Your task to perform on an android device: Go to eBay Image 0: 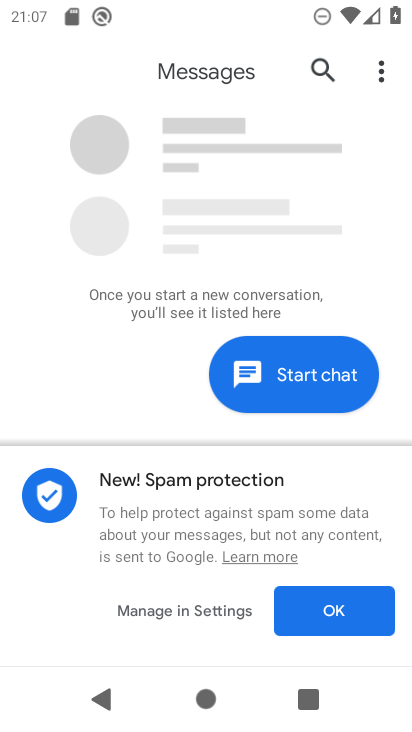
Step 0: press home button
Your task to perform on an android device: Go to eBay Image 1: 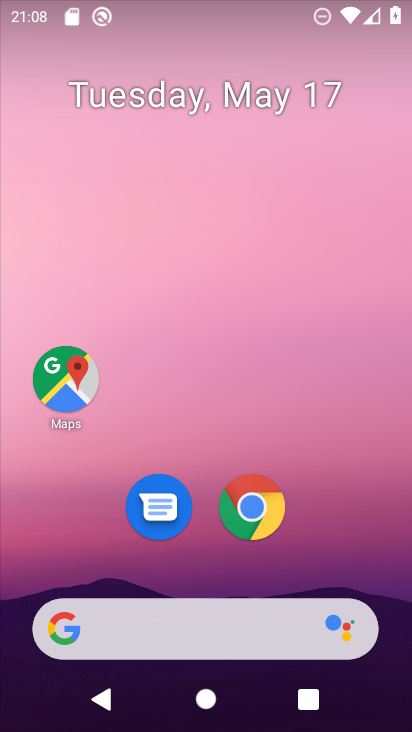
Step 1: click (255, 505)
Your task to perform on an android device: Go to eBay Image 2: 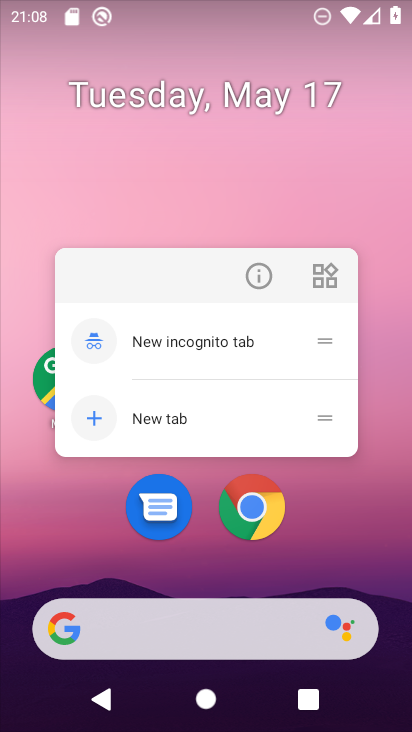
Step 2: click (252, 506)
Your task to perform on an android device: Go to eBay Image 3: 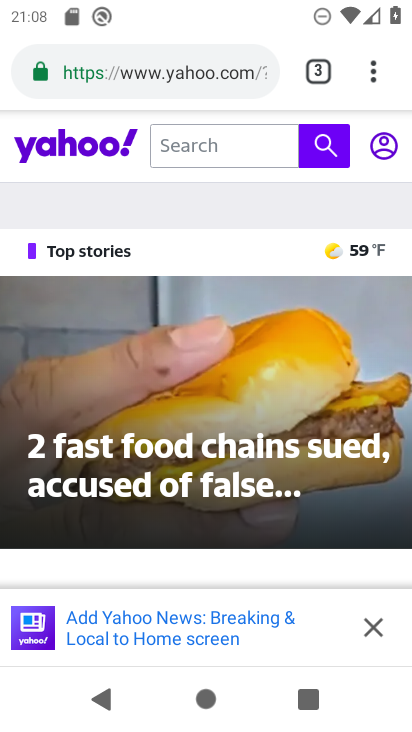
Step 3: click (120, 79)
Your task to perform on an android device: Go to eBay Image 4: 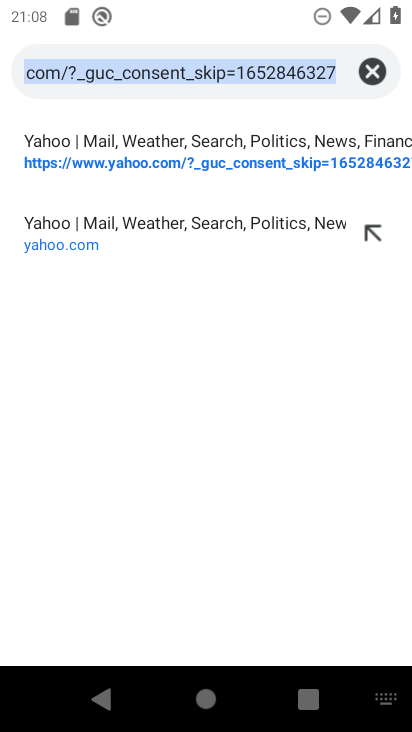
Step 4: click (374, 68)
Your task to perform on an android device: Go to eBay Image 5: 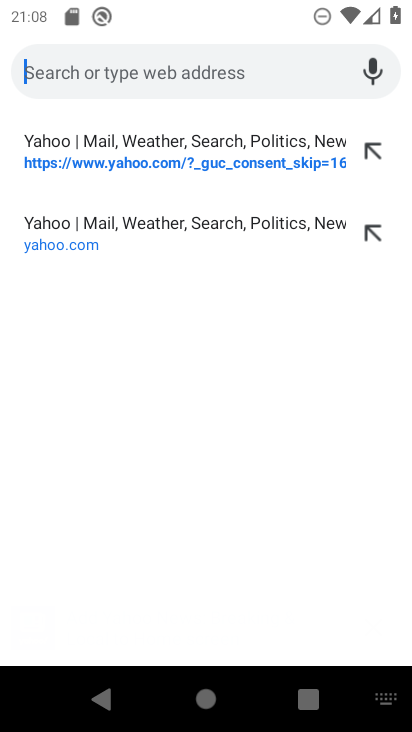
Step 5: type "ebay"
Your task to perform on an android device: Go to eBay Image 6: 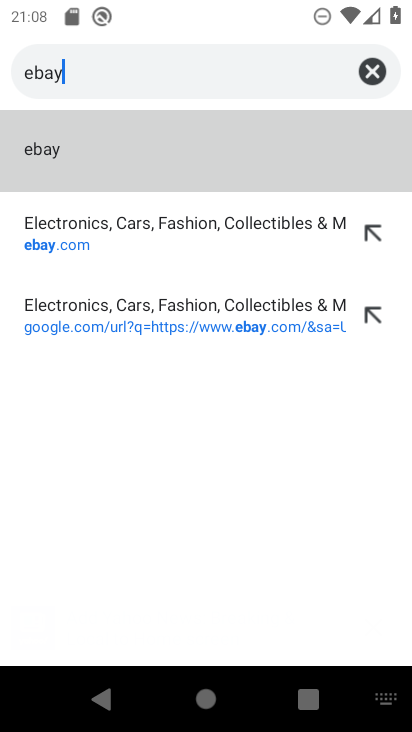
Step 6: click (17, 141)
Your task to perform on an android device: Go to eBay Image 7: 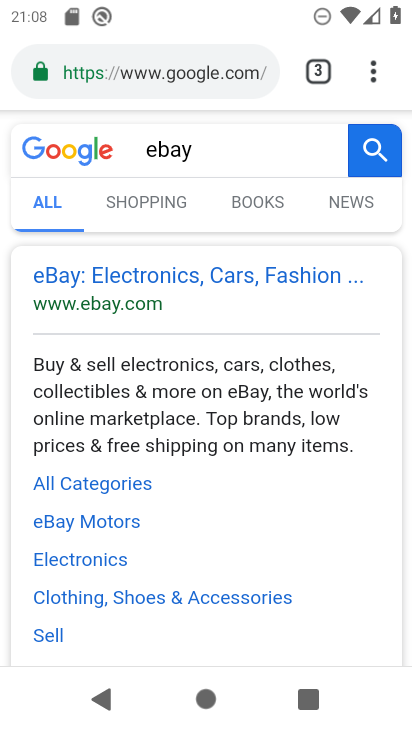
Step 7: click (64, 302)
Your task to perform on an android device: Go to eBay Image 8: 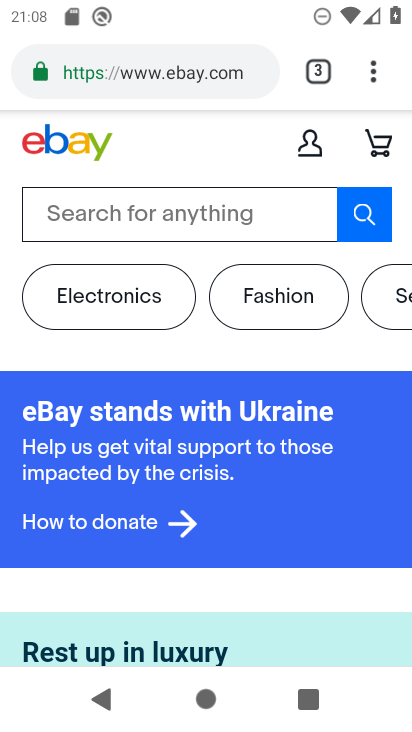
Step 8: task complete